Your task to perform on an android device: Go to sound settings Image 0: 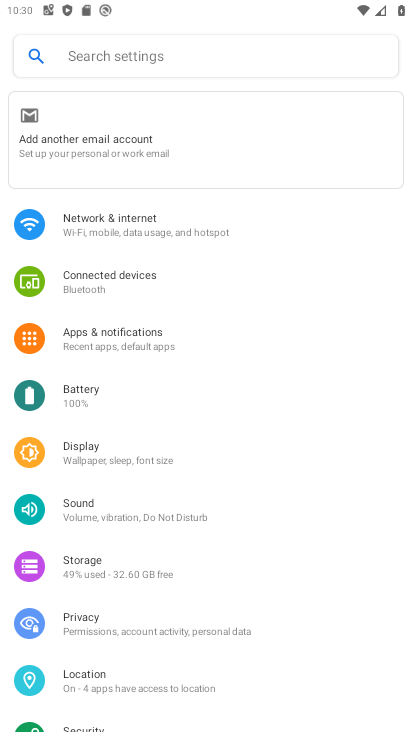
Step 0: press home button
Your task to perform on an android device: Go to sound settings Image 1: 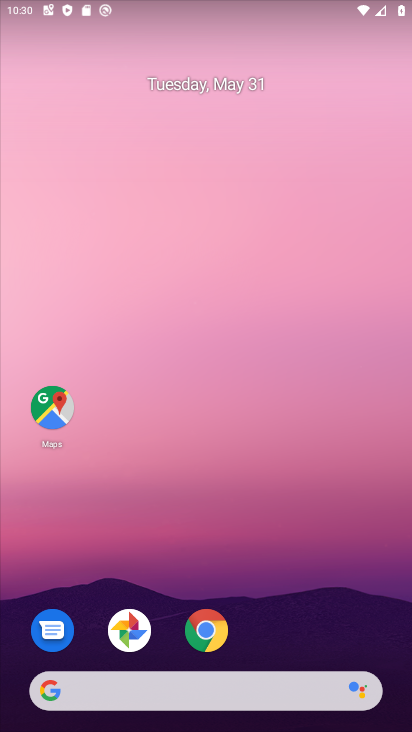
Step 1: drag from (249, 642) to (266, 234)
Your task to perform on an android device: Go to sound settings Image 2: 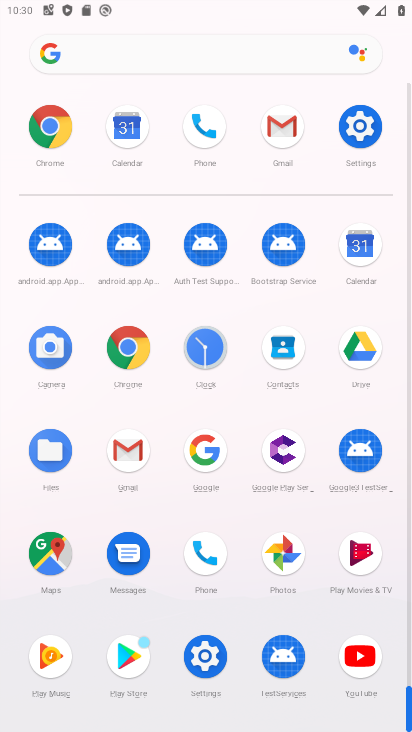
Step 2: click (355, 116)
Your task to perform on an android device: Go to sound settings Image 3: 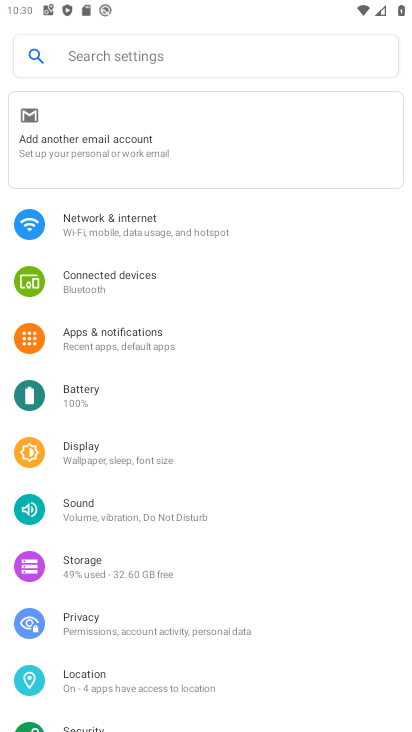
Step 3: click (115, 522)
Your task to perform on an android device: Go to sound settings Image 4: 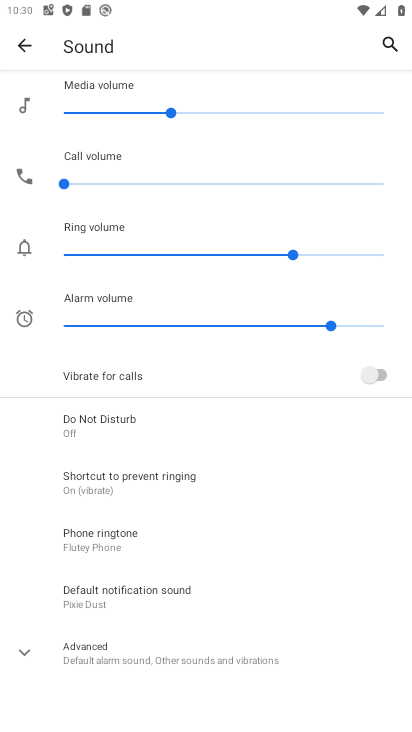
Step 4: task complete